Your task to perform on an android device: turn off location history Image 0: 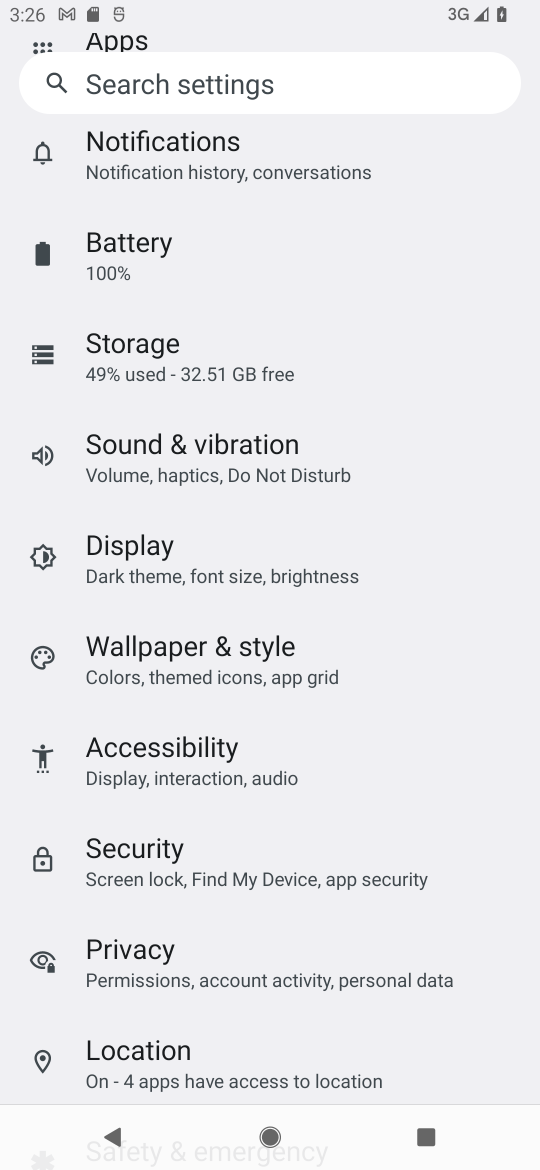
Step 0: drag from (217, 981) to (218, 404)
Your task to perform on an android device: turn off location history Image 1: 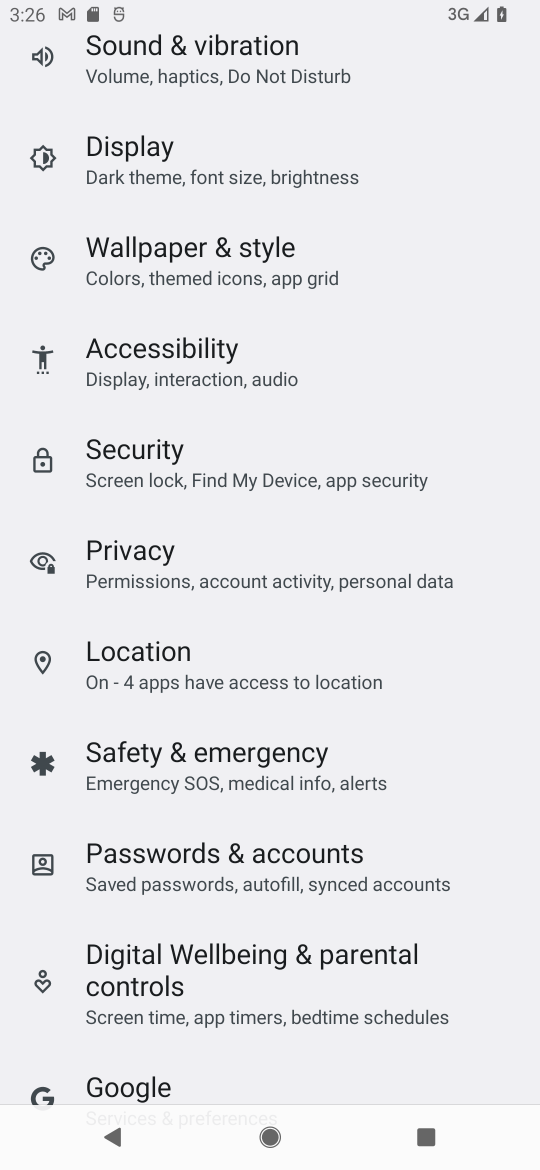
Step 1: click (124, 680)
Your task to perform on an android device: turn off location history Image 2: 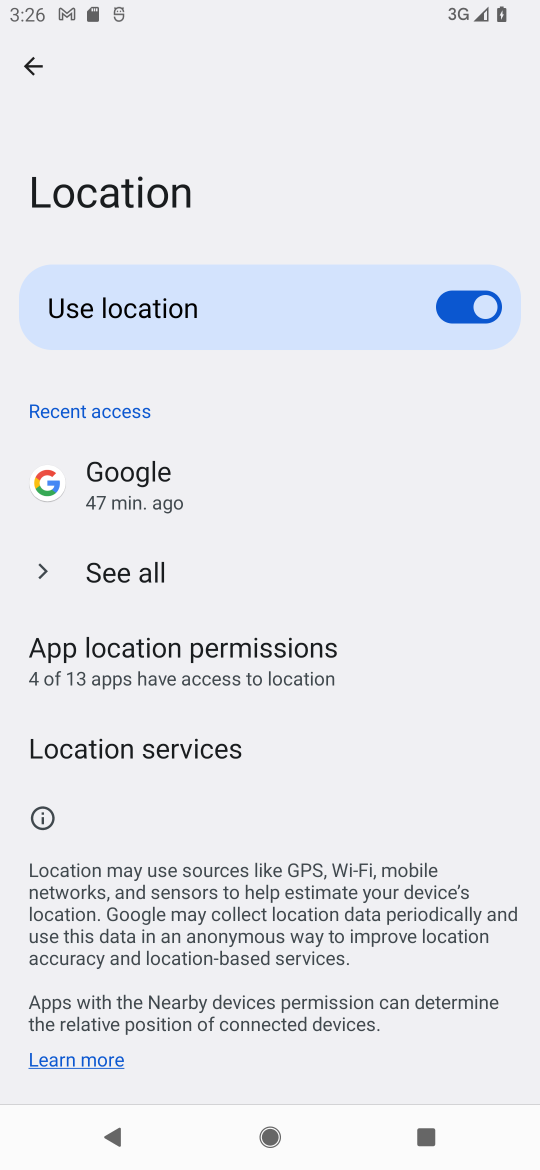
Step 2: task complete